Your task to perform on an android device: turn vacation reply on in the gmail app Image 0: 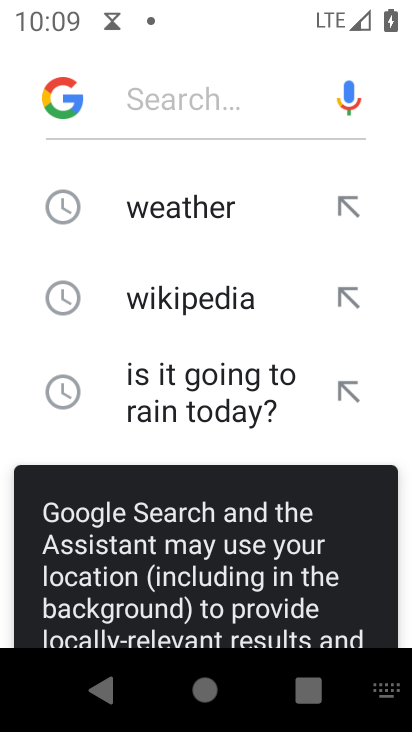
Step 0: press home button
Your task to perform on an android device: turn vacation reply on in the gmail app Image 1: 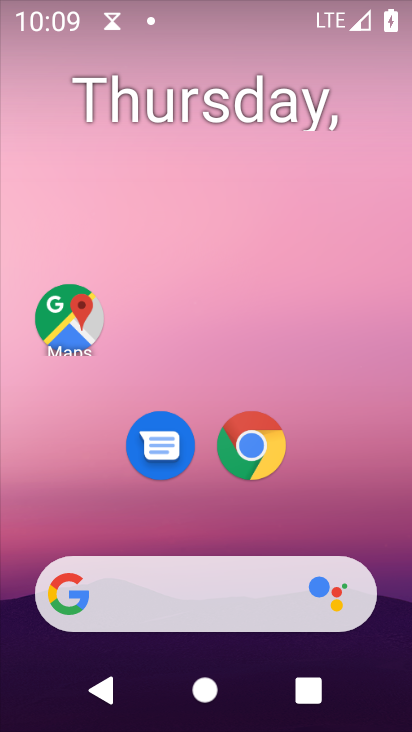
Step 1: drag from (392, 543) to (313, 122)
Your task to perform on an android device: turn vacation reply on in the gmail app Image 2: 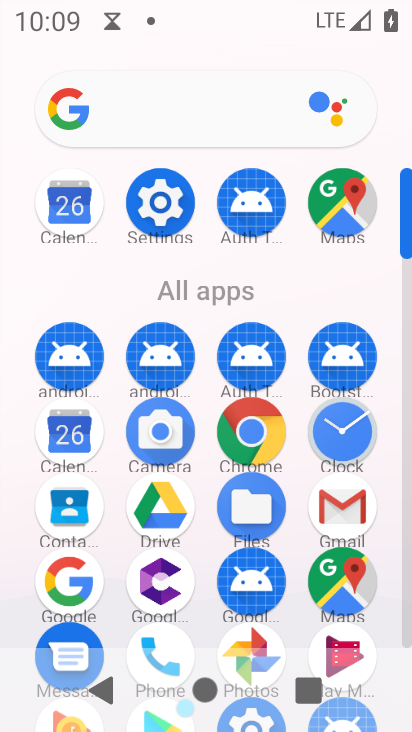
Step 2: click (349, 508)
Your task to perform on an android device: turn vacation reply on in the gmail app Image 3: 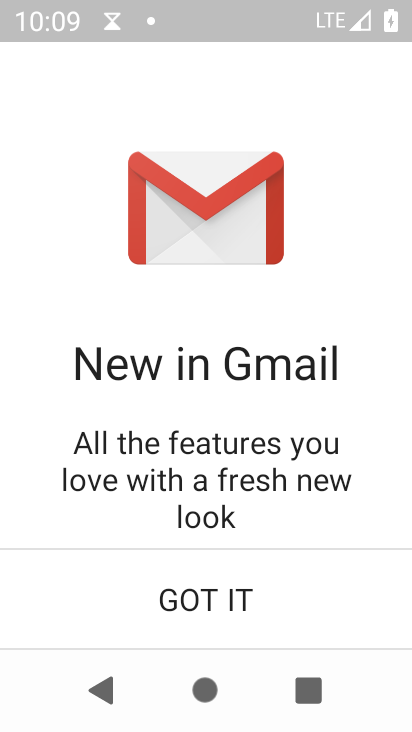
Step 3: click (215, 604)
Your task to perform on an android device: turn vacation reply on in the gmail app Image 4: 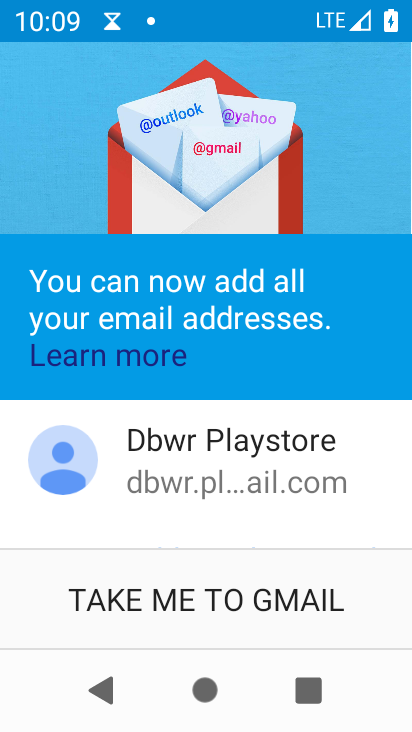
Step 4: click (215, 604)
Your task to perform on an android device: turn vacation reply on in the gmail app Image 5: 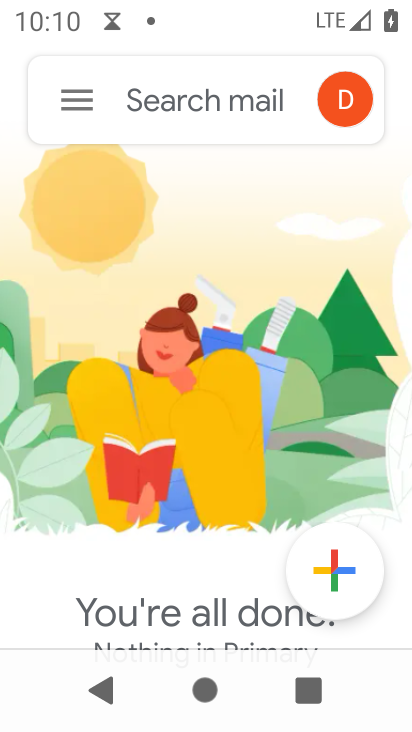
Step 5: click (88, 78)
Your task to perform on an android device: turn vacation reply on in the gmail app Image 6: 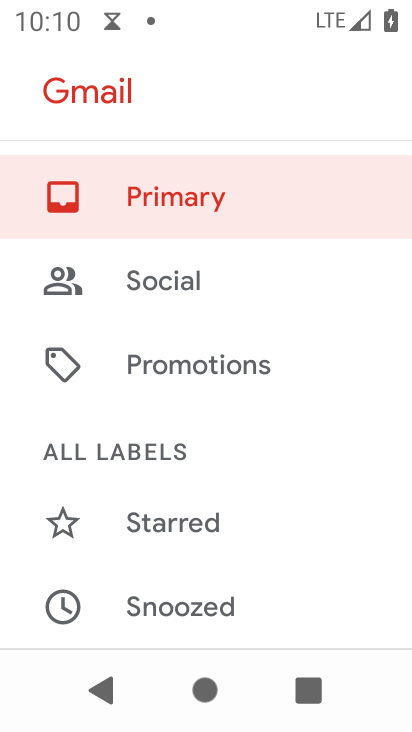
Step 6: drag from (193, 578) to (160, 282)
Your task to perform on an android device: turn vacation reply on in the gmail app Image 7: 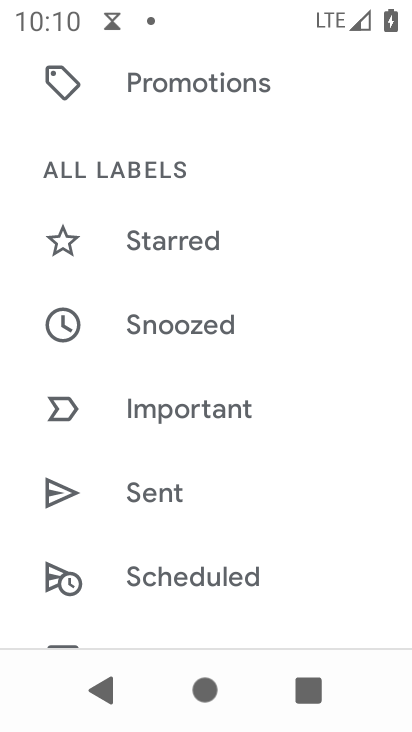
Step 7: drag from (168, 522) to (145, 161)
Your task to perform on an android device: turn vacation reply on in the gmail app Image 8: 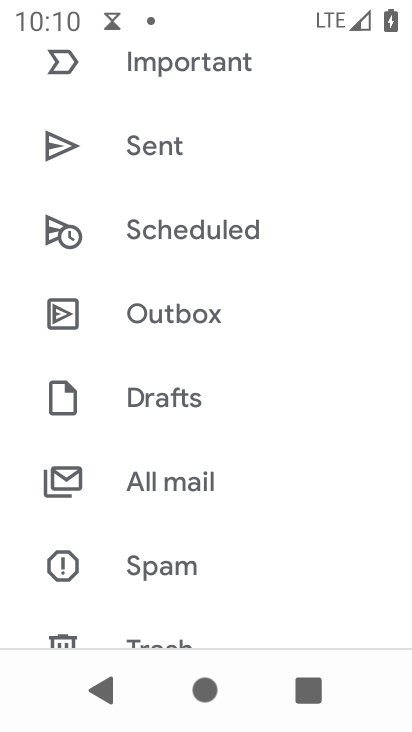
Step 8: drag from (152, 522) to (110, 146)
Your task to perform on an android device: turn vacation reply on in the gmail app Image 9: 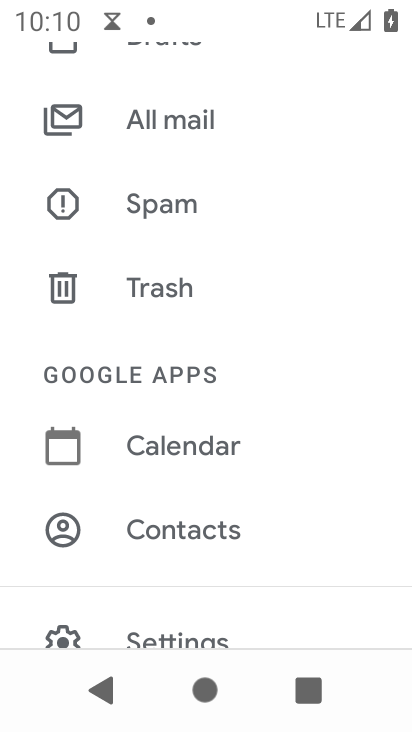
Step 9: drag from (186, 565) to (159, 92)
Your task to perform on an android device: turn vacation reply on in the gmail app Image 10: 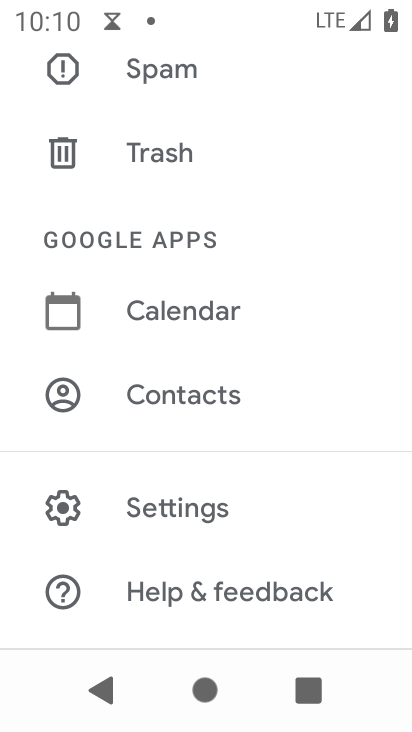
Step 10: click (192, 498)
Your task to perform on an android device: turn vacation reply on in the gmail app Image 11: 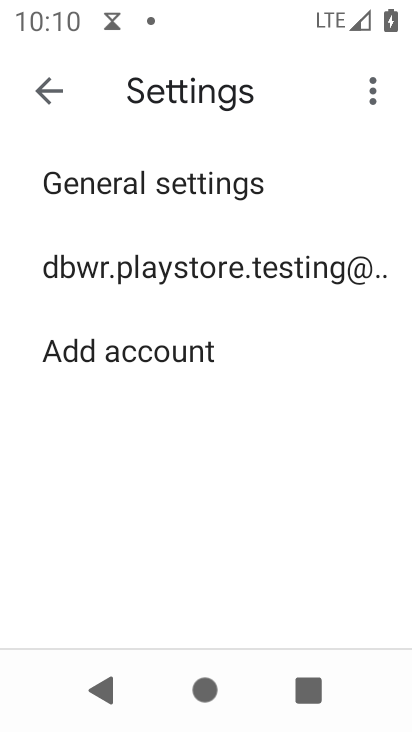
Step 11: click (239, 273)
Your task to perform on an android device: turn vacation reply on in the gmail app Image 12: 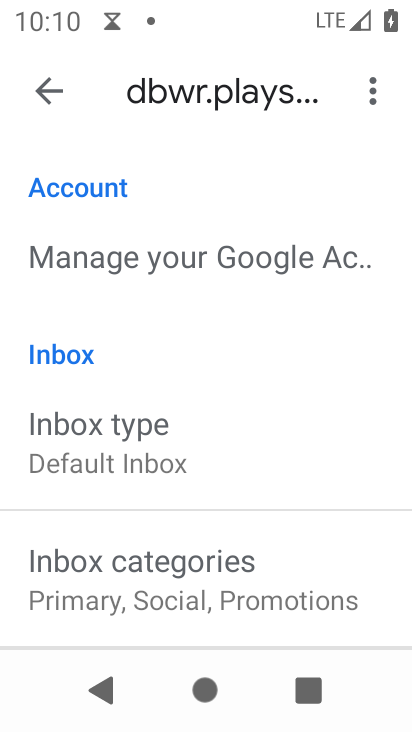
Step 12: drag from (221, 566) to (175, 179)
Your task to perform on an android device: turn vacation reply on in the gmail app Image 13: 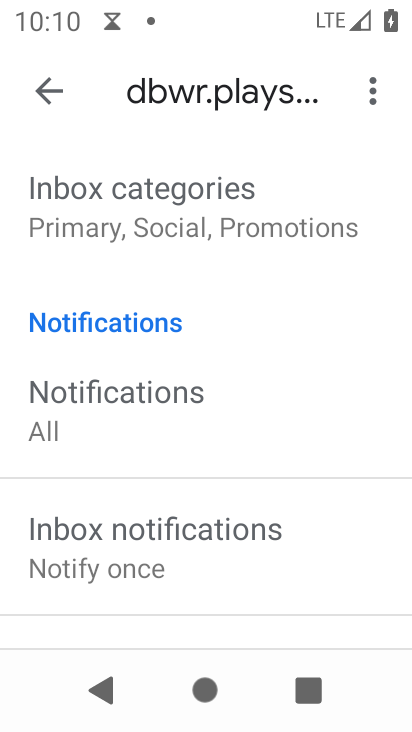
Step 13: drag from (185, 623) to (124, 217)
Your task to perform on an android device: turn vacation reply on in the gmail app Image 14: 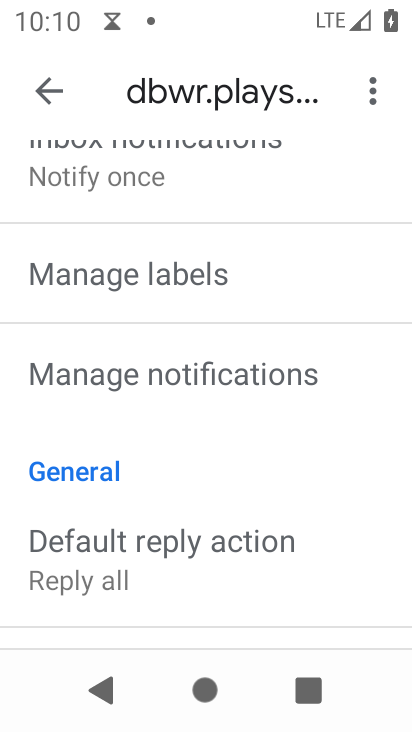
Step 14: drag from (172, 518) to (115, 156)
Your task to perform on an android device: turn vacation reply on in the gmail app Image 15: 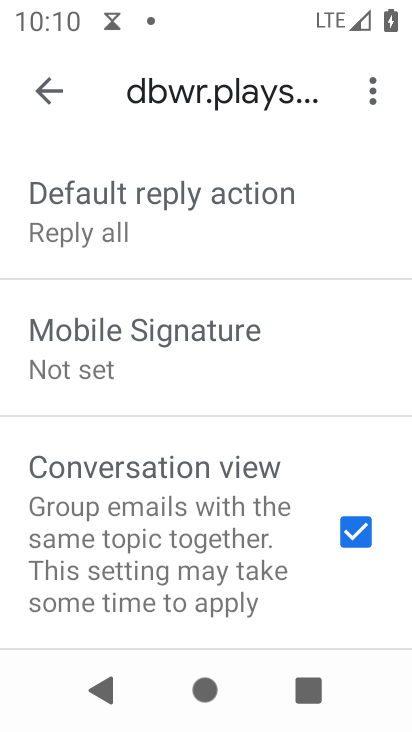
Step 15: drag from (201, 576) to (145, 247)
Your task to perform on an android device: turn vacation reply on in the gmail app Image 16: 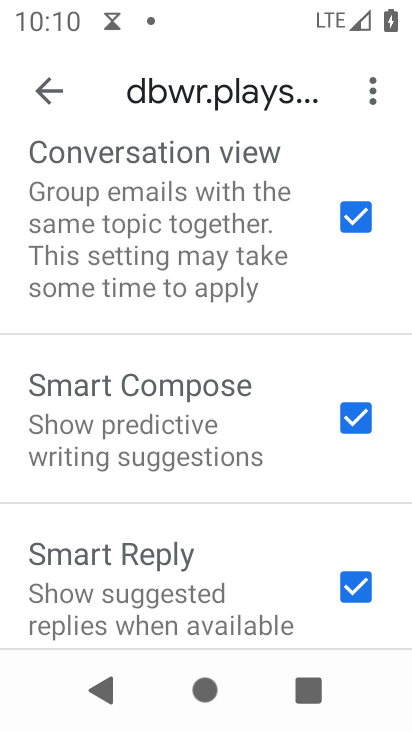
Step 16: drag from (155, 591) to (95, 152)
Your task to perform on an android device: turn vacation reply on in the gmail app Image 17: 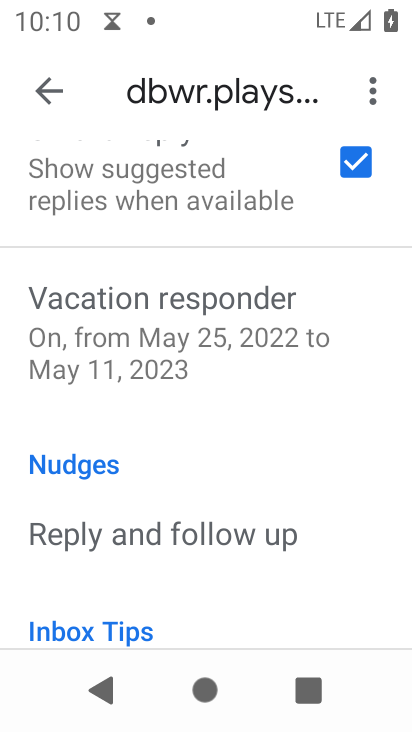
Step 17: click (164, 312)
Your task to perform on an android device: turn vacation reply on in the gmail app Image 18: 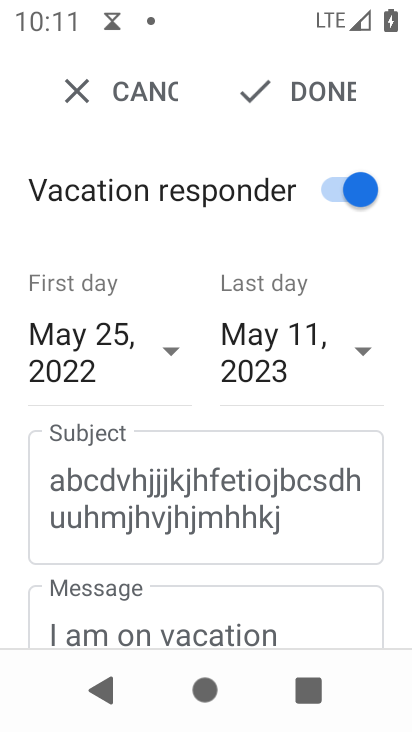
Step 18: click (308, 93)
Your task to perform on an android device: turn vacation reply on in the gmail app Image 19: 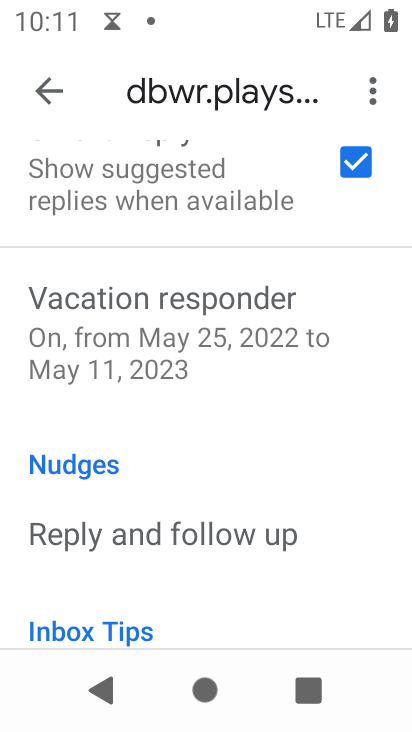
Step 19: task complete